Your task to perform on an android device: uninstall "Adobe Express: Graphic Design" Image 0: 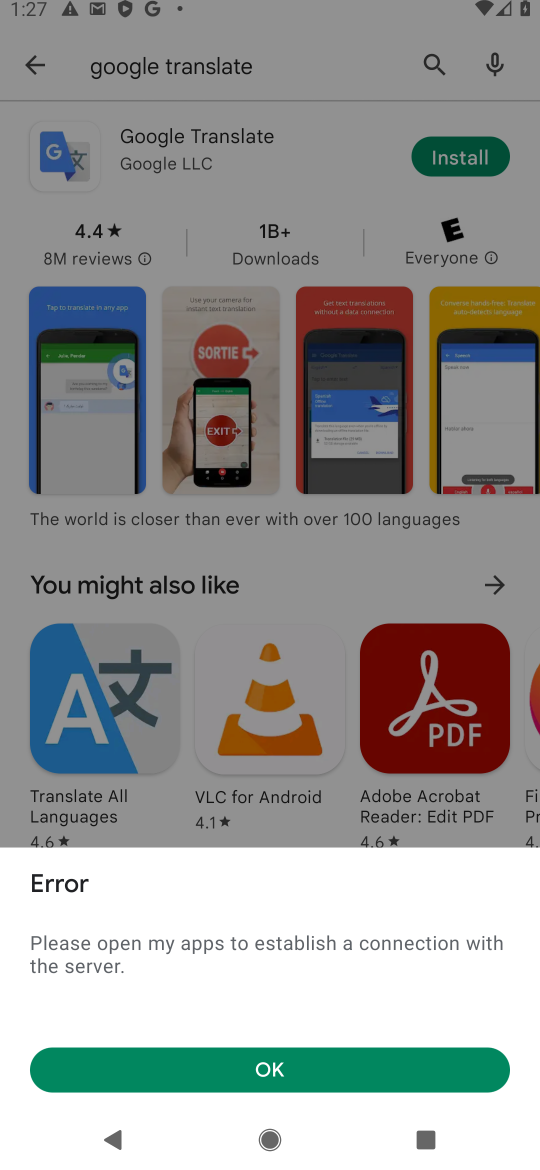
Step 0: press home button
Your task to perform on an android device: uninstall "Adobe Express: Graphic Design" Image 1: 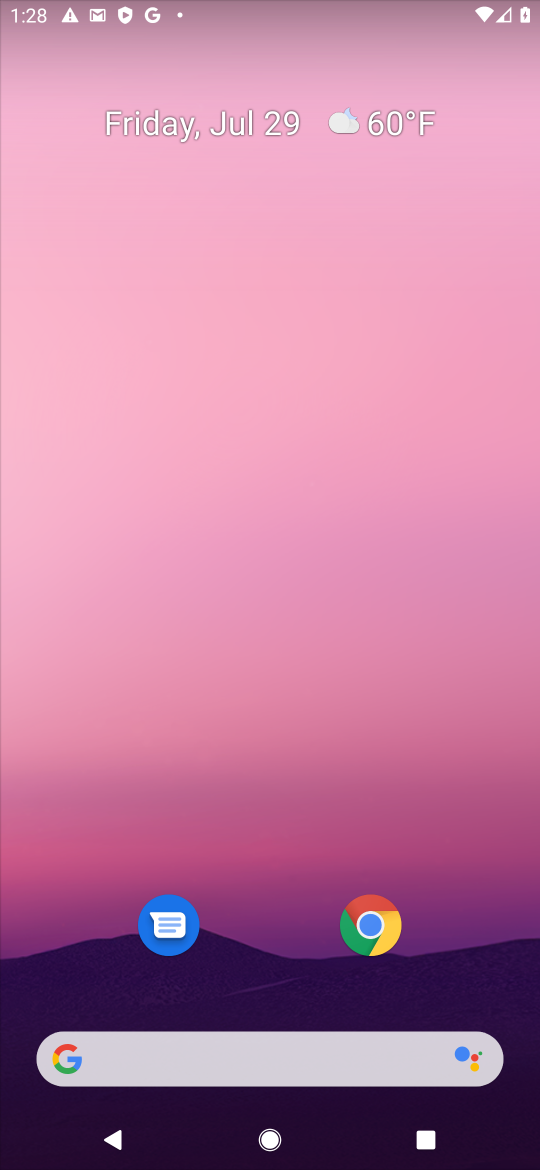
Step 1: drag from (185, 1063) to (471, 519)
Your task to perform on an android device: uninstall "Adobe Express: Graphic Design" Image 2: 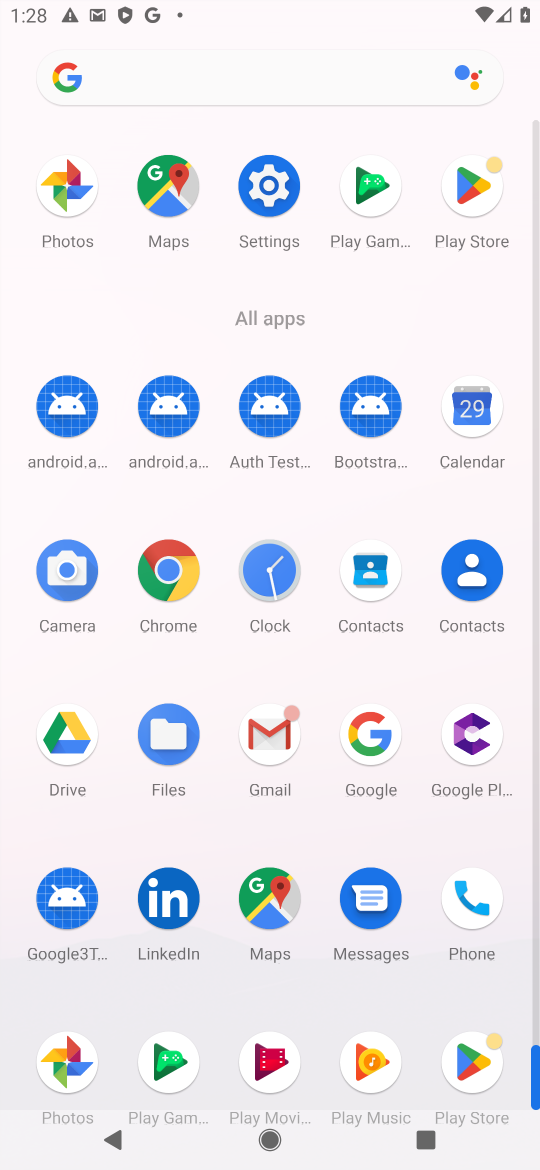
Step 2: click (481, 181)
Your task to perform on an android device: uninstall "Adobe Express: Graphic Design" Image 3: 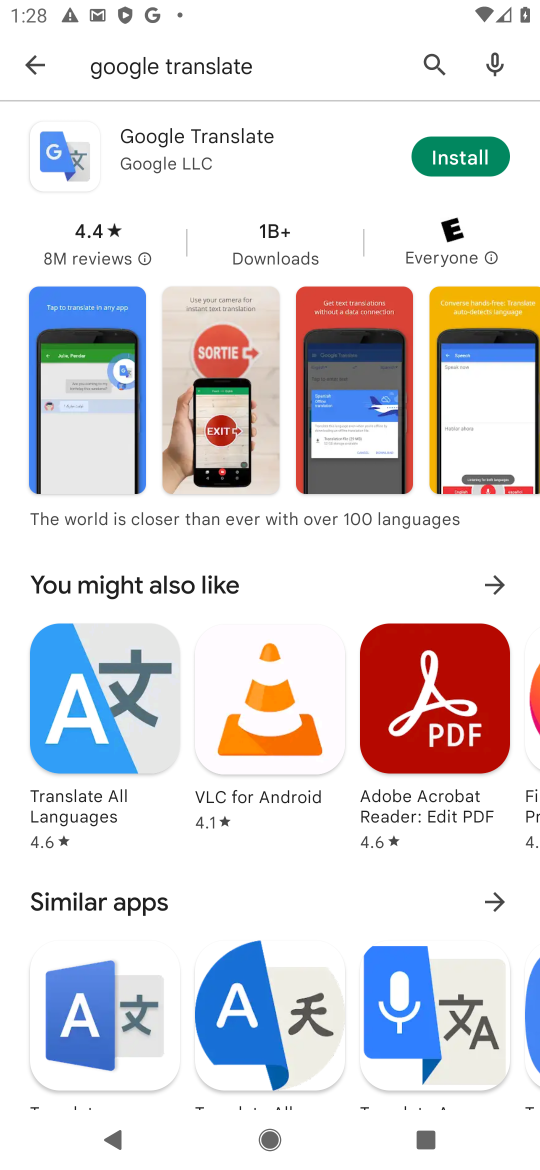
Step 3: click (439, 53)
Your task to perform on an android device: uninstall "Adobe Express: Graphic Design" Image 4: 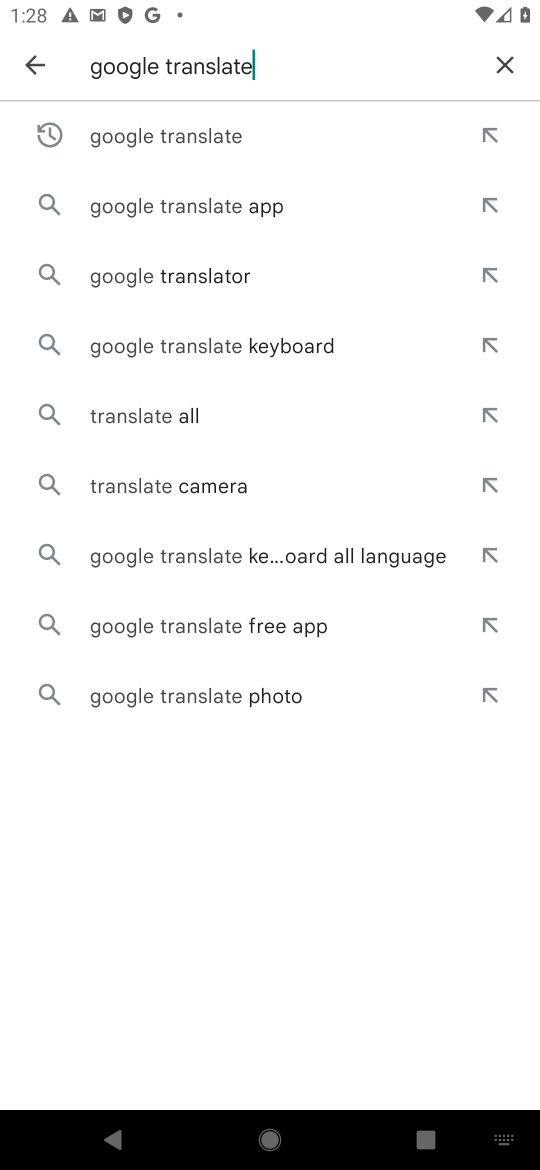
Step 4: click (498, 68)
Your task to perform on an android device: uninstall "Adobe Express: Graphic Design" Image 5: 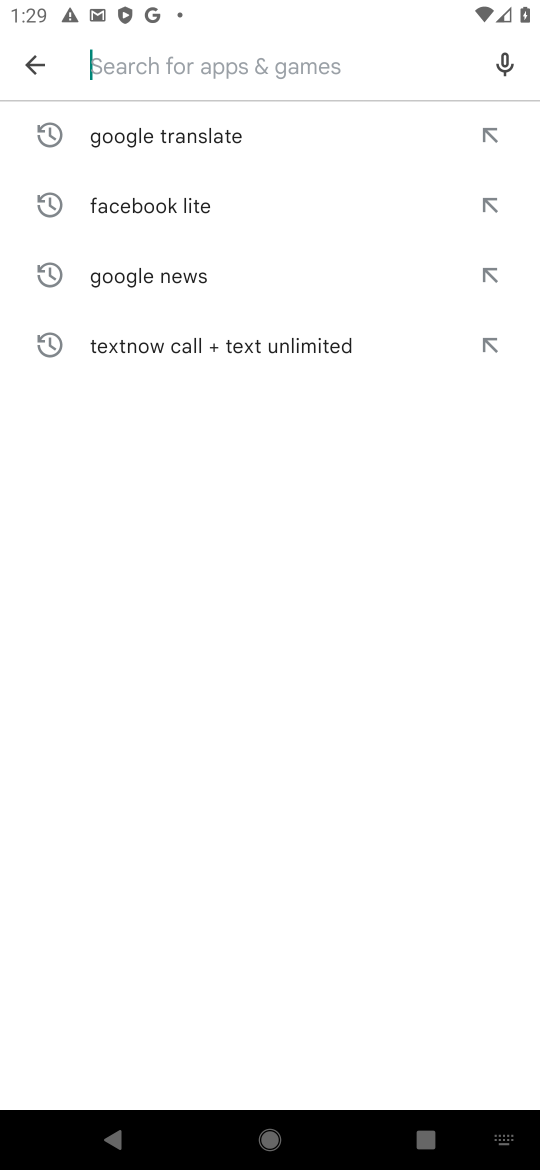
Step 5: type "adobe express: graphic design"
Your task to perform on an android device: uninstall "Adobe Express: Graphic Design" Image 6: 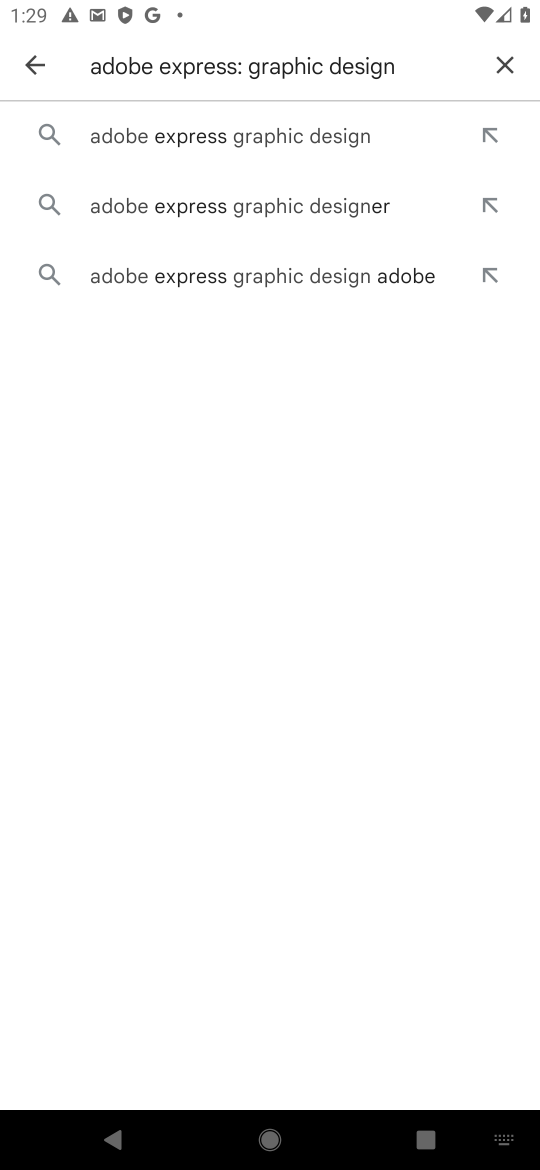
Step 6: click (120, 126)
Your task to perform on an android device: uninstall "Adobe Express: Graphic Design" Image 7: 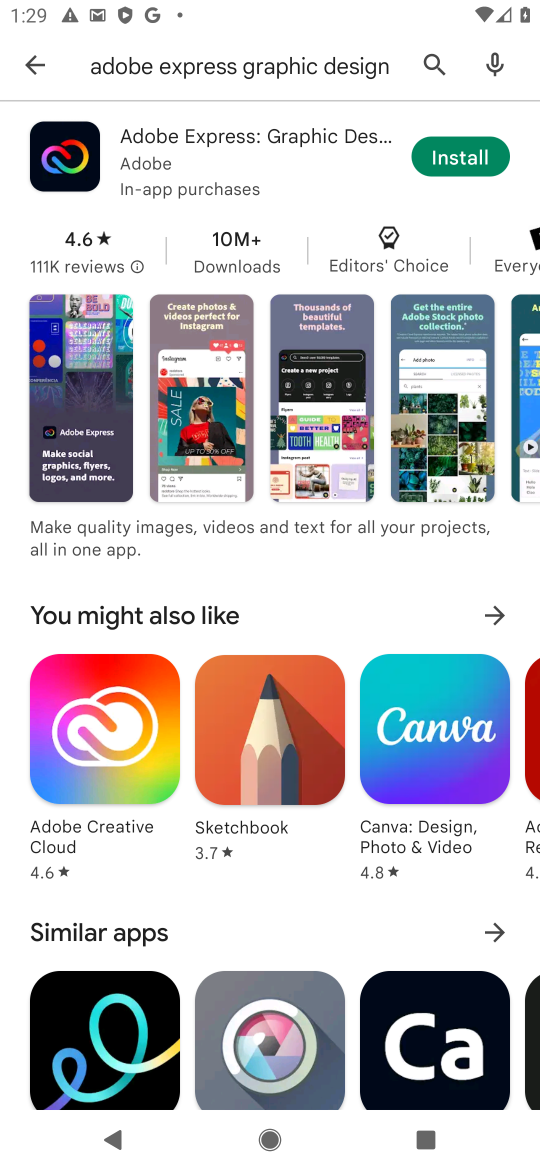
Step 7: task complete